Your task to perform on an android device: all mails in gmail Image 0: 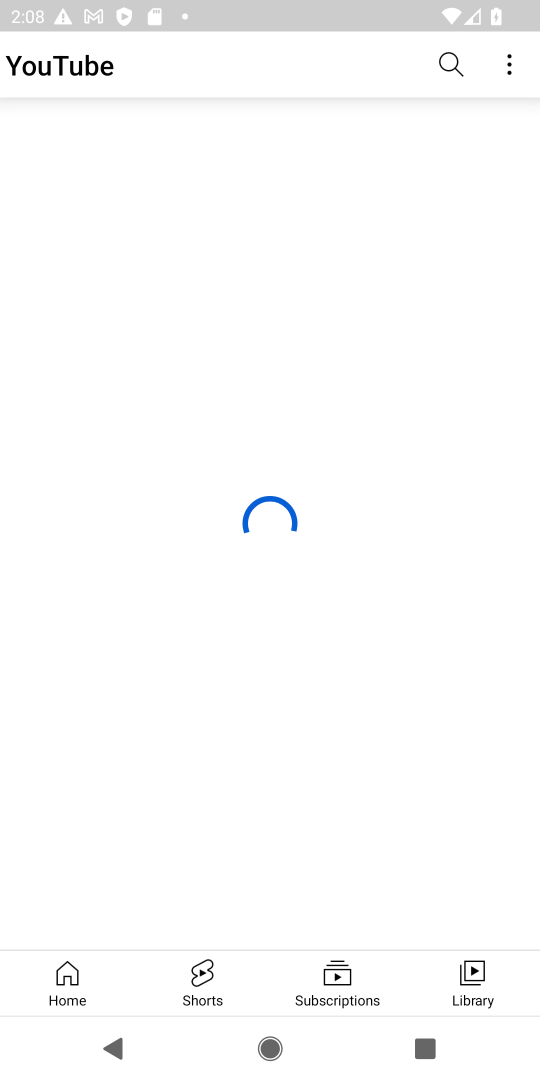
Step 0: press home button
Your task to perform on an android device: all mails in gmail Image 1: 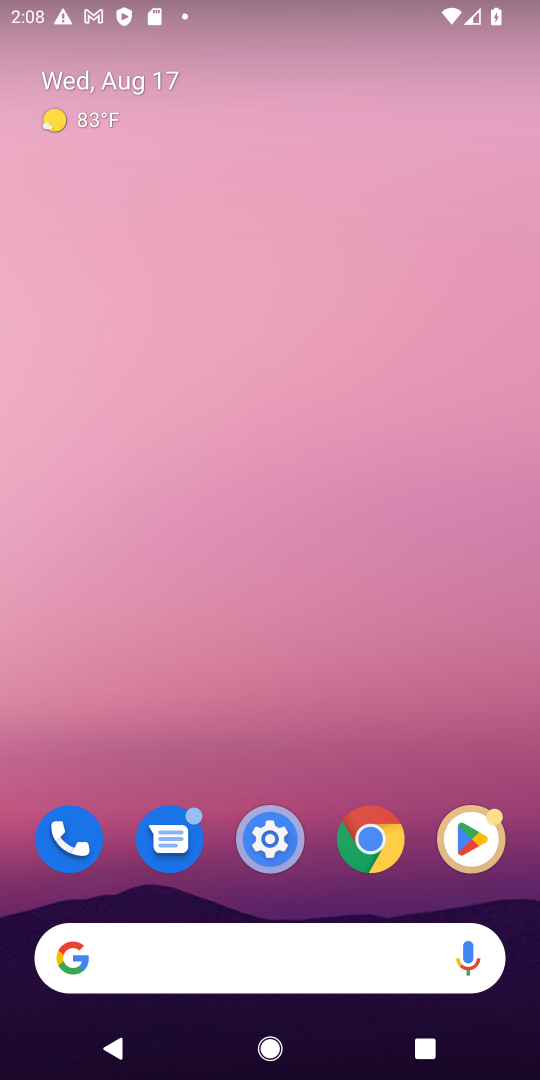
Step 1: drag from (297, 863) to (315, 107)
Your task to perform on an android device: all mails in gmail Image 2: 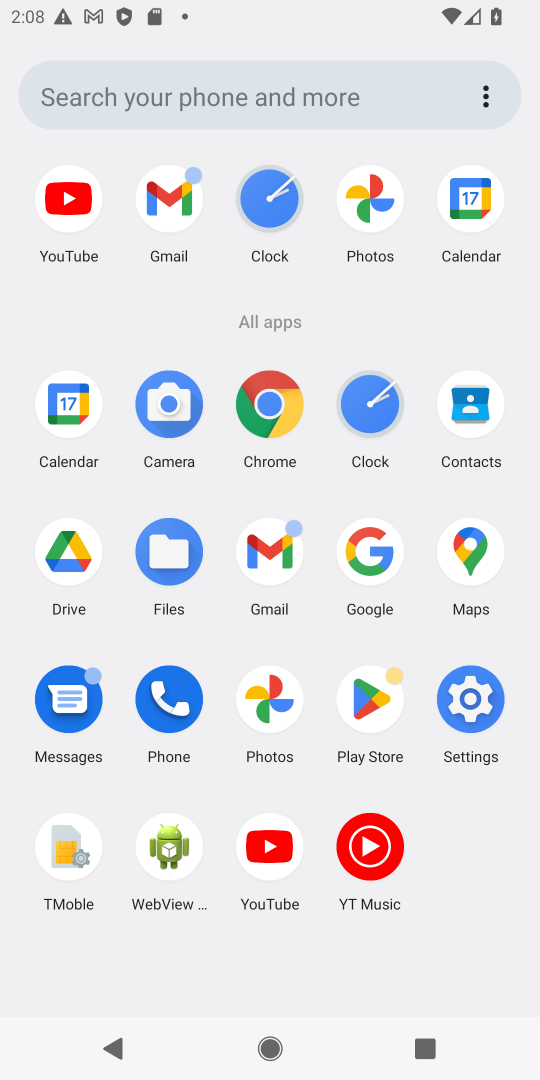
Step 2: click (261, 557)
Your task to perform on an android device: all mails in gmail Image 3: 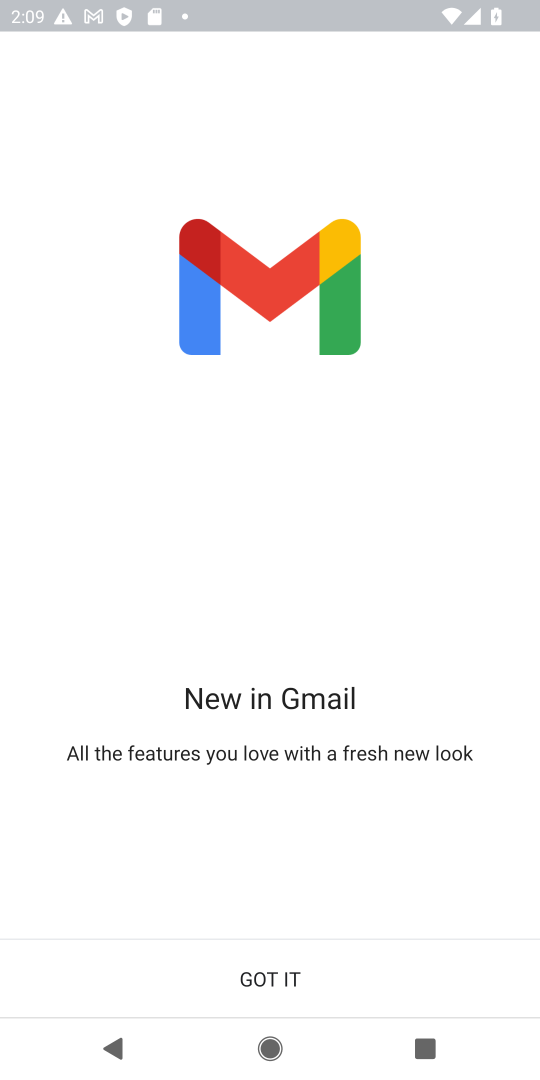
Step 3: click (265, 979)
Your task to perform on an android device: all mails in gmail Image 4: 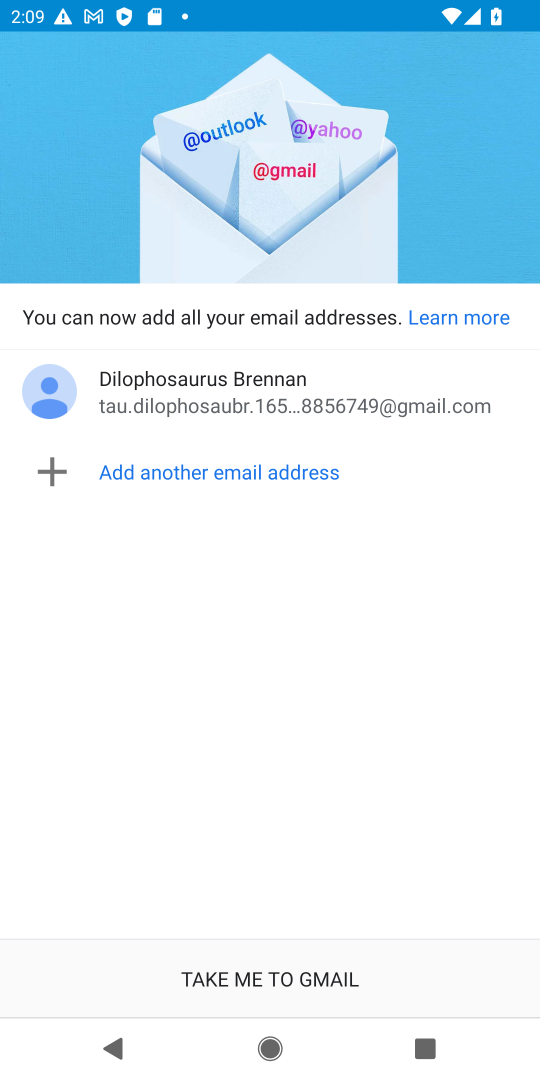
Step 4: click (271, 974)
Your task to perform on an android device: all mails in gmail Image 5: 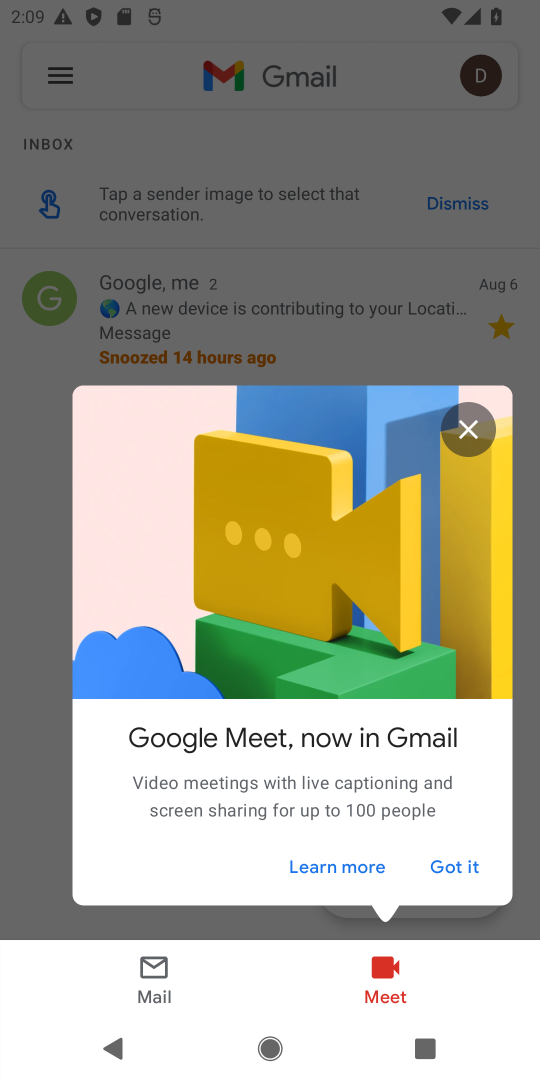
Step 5: click (451, 866)
Your task to perform on an android device: all mails in gmail Image 6: 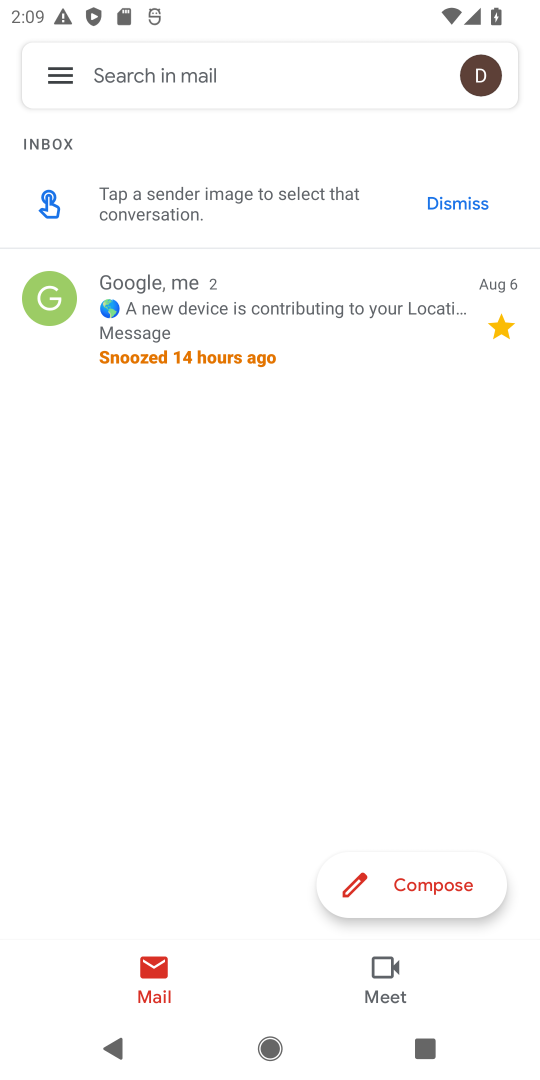
Step 6: click (55, 77)
Your task to perform on an android device: all mails in gmail Image 7: 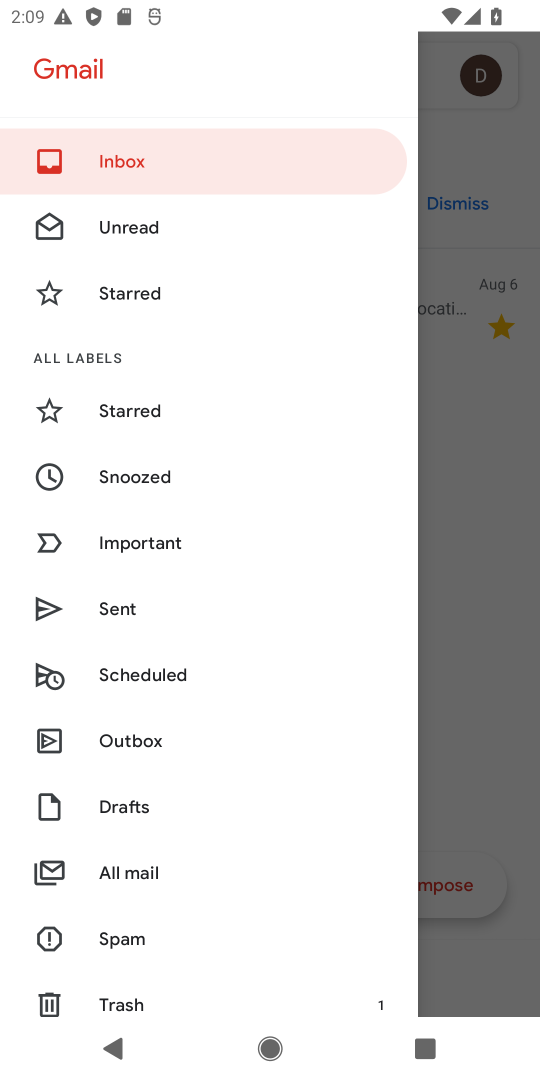
Step 7: click (144, 867)
Your task to perform on an android device: all mails in gmail Image 8: 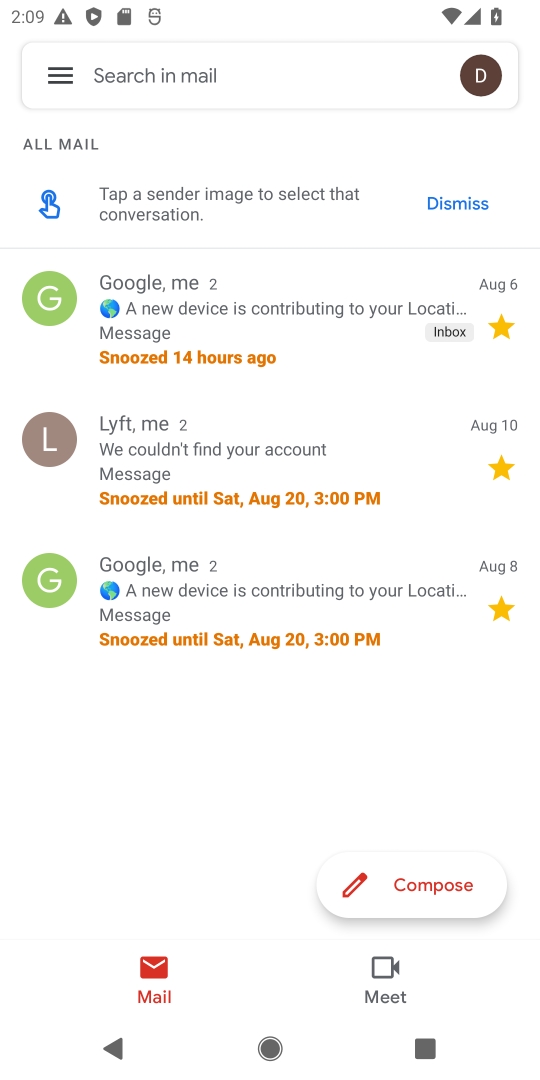
Step 8: task complete